Your task to perform on an android device: Open Google Maps and go to "Timeline" Image 0: 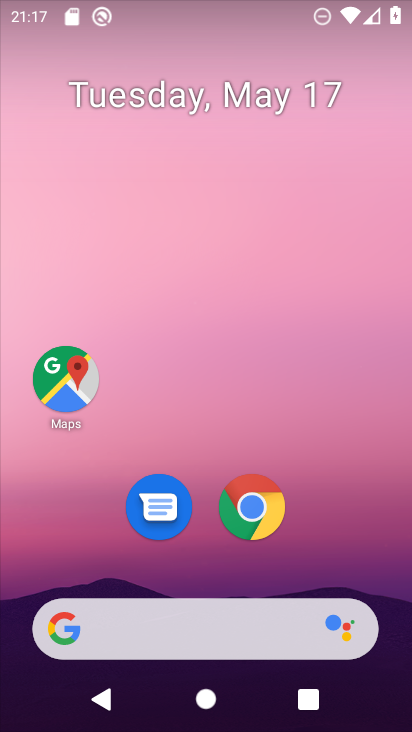
Step 0: click (61, 373)
Your task to perform on an android device: Open Google Maps and go to "Timeline" Image 1: 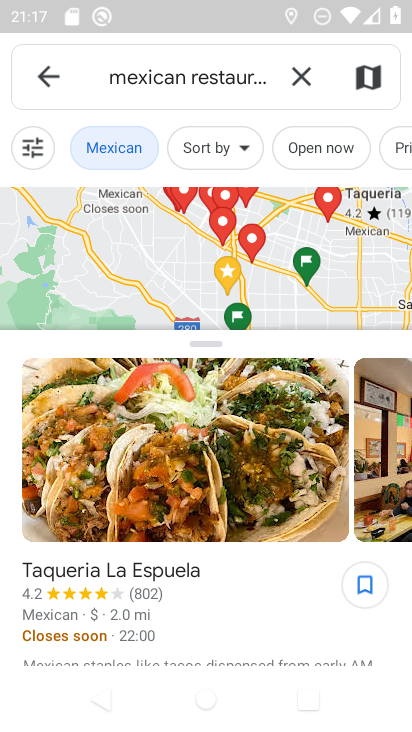
Step 1: click (302, 82)
Your task to perform on an android device: Open Google Maps and go to "Timeline" Image 2: 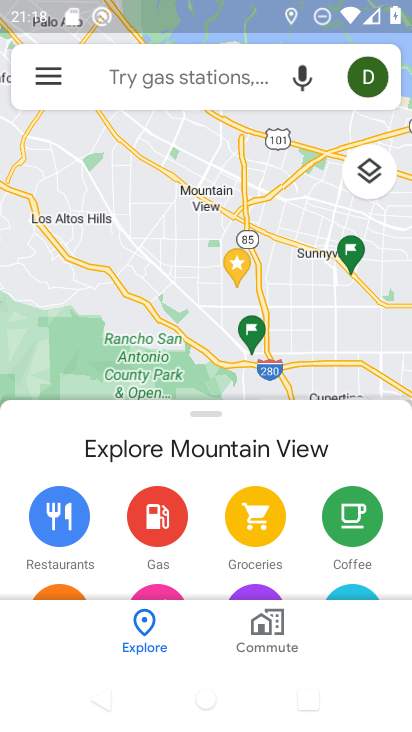
Step 2: click (46, 60)
Your task to perform on an android device: Open Google Maps and go to "Timeline" Image 3: 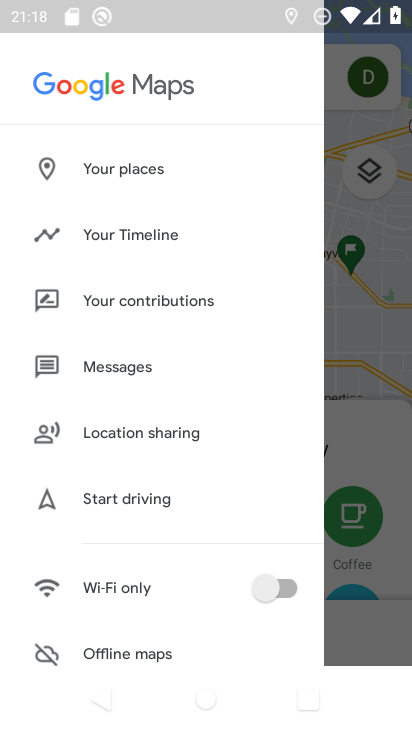
Step 3: click (93, 235)
Your task to perform on an android device: Open Google Maps and go to "Timeline" Image 4: 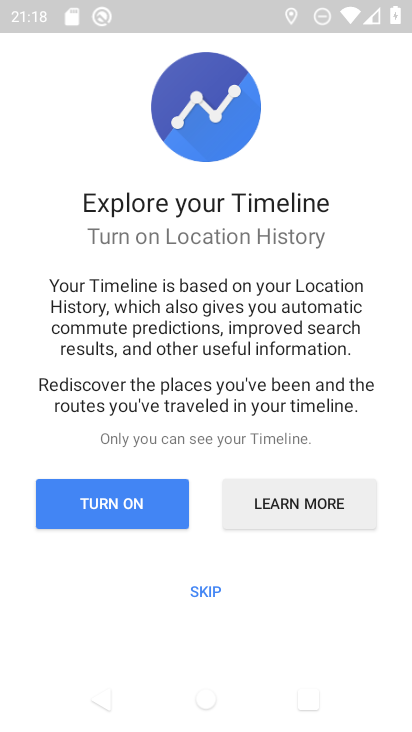
Step 4: click (195, 587)
Your task to perform on an android device: Open Google Maps and go to "Timeline" Image 5: 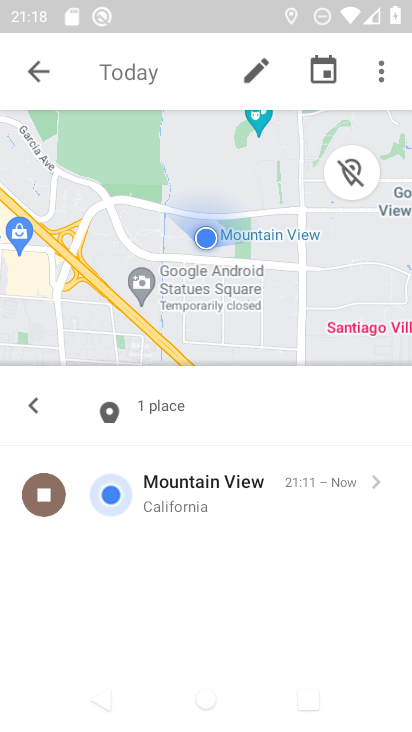
Step 5: task complete